Your task to perform on an android device: change notifications settings Image 0: 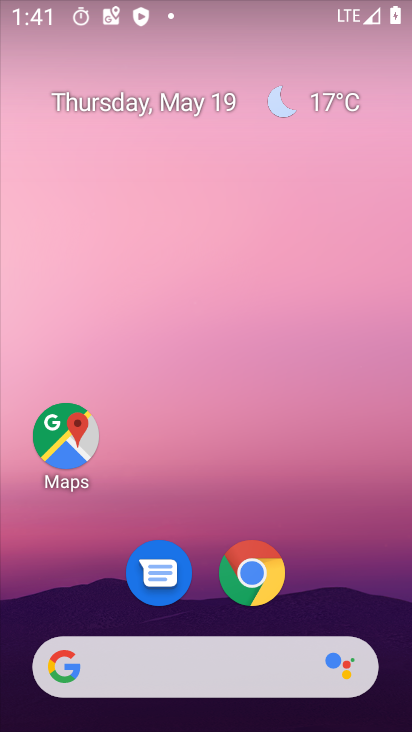
Step 0: drag from (208, 606) to (265, 91)
Your task to perform on an android device: change notifications settings Image 1: 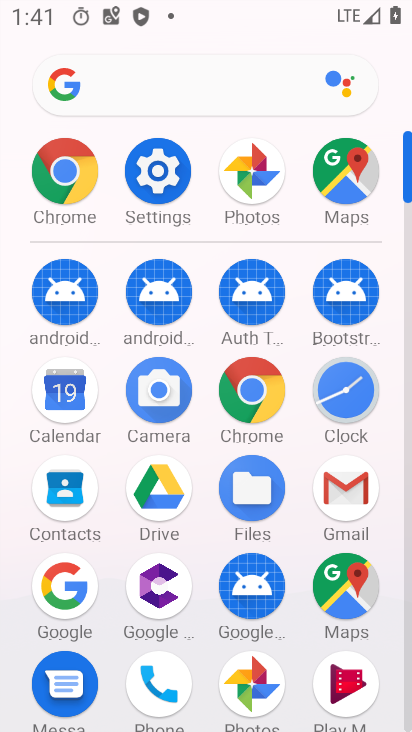
Step 1: click (153, 174)
Your task to perform on an android device: change notifications settings Image 2: 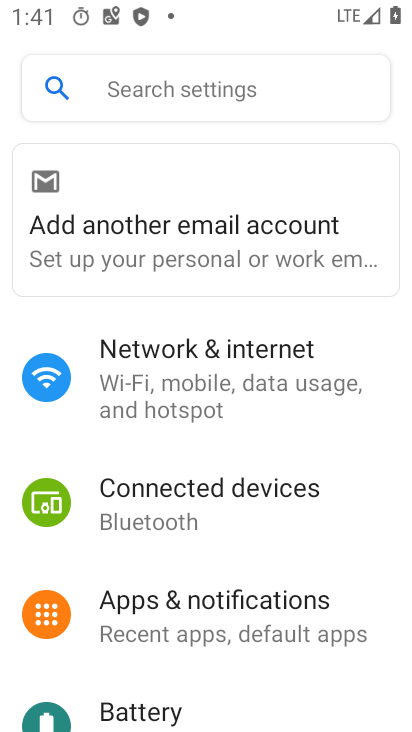
Step 2: click (194, 626)
Your task to perform on an android device: change notifications settings Image 3: 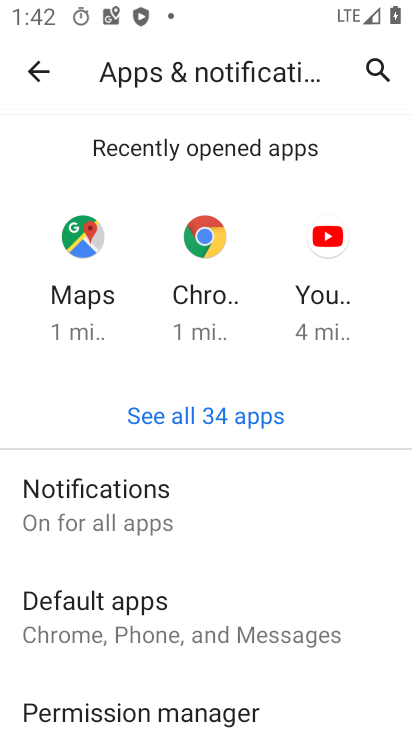
Step 3: click (169, 499)
Your task to perform on an android device: change notifications settings Image 4: 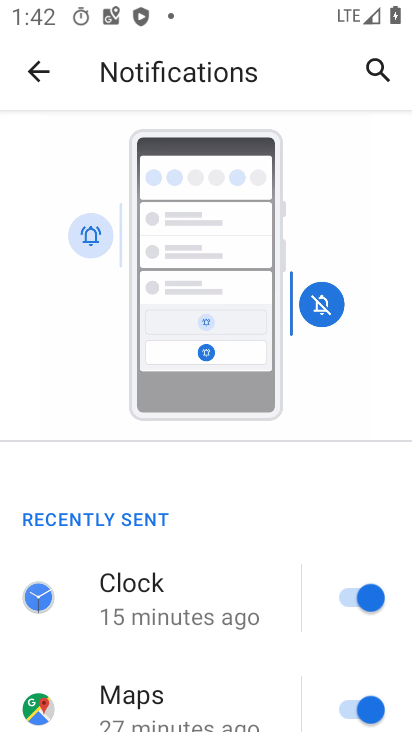
Step 4: drag from (150, 671) to (175, 227)
Your task to perform on an android device: change notifications settings Image 5: 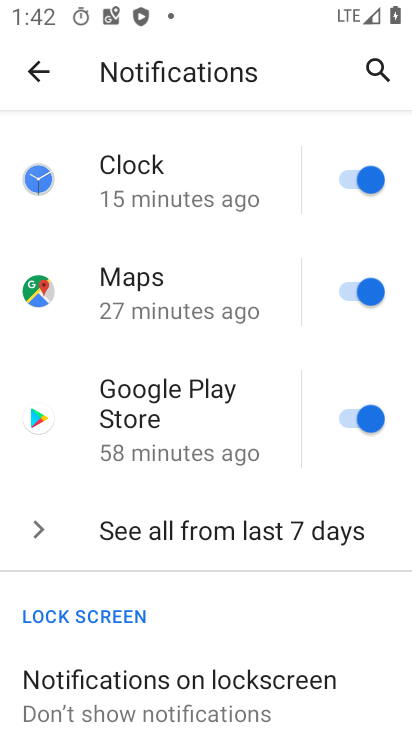
Step 5: drag from (196, 629) to (275, 93)
Your task to perform on an android device: change notifications settings Image 6: 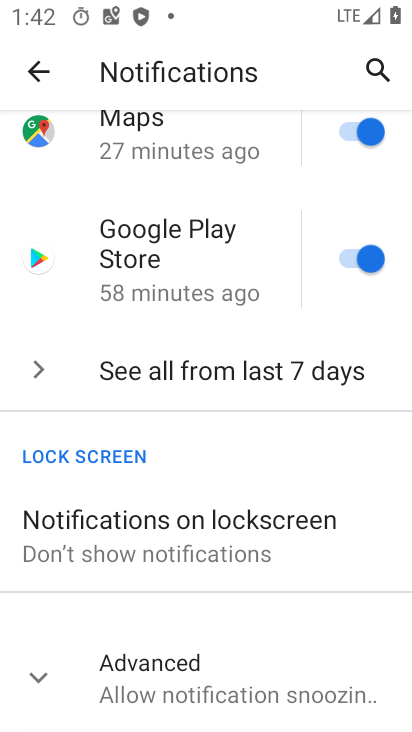
Step 6: click (221, 651)
Your task to perform on an android device: change notifications settings Image 7: 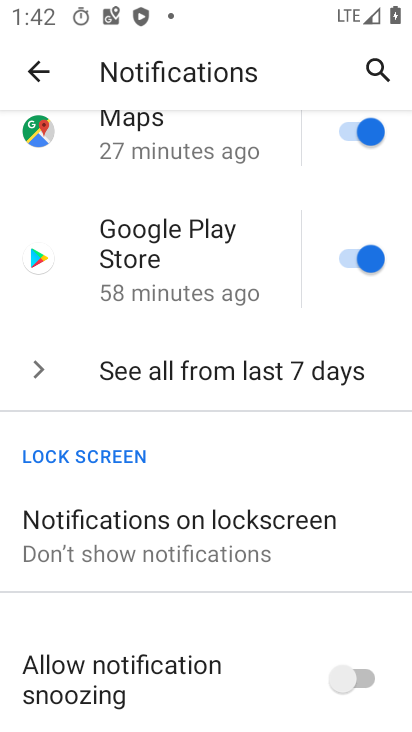
Step 7: click (360, 683)
Your task to perform on an android device: change notifications settings Image 8: 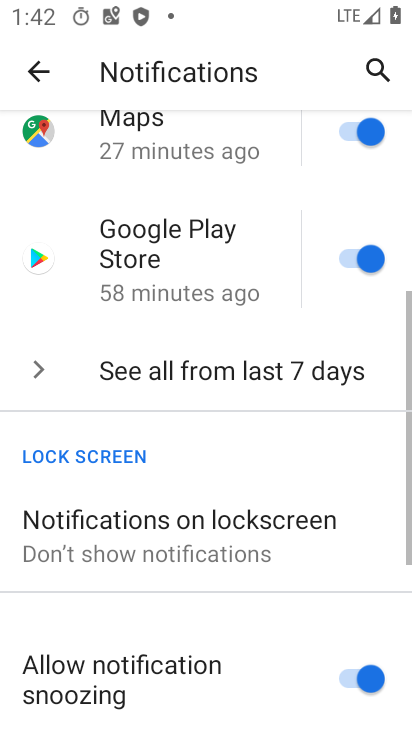
Step 8: task complete